Your task to perform on an android device: change keyboard looks Image 0: 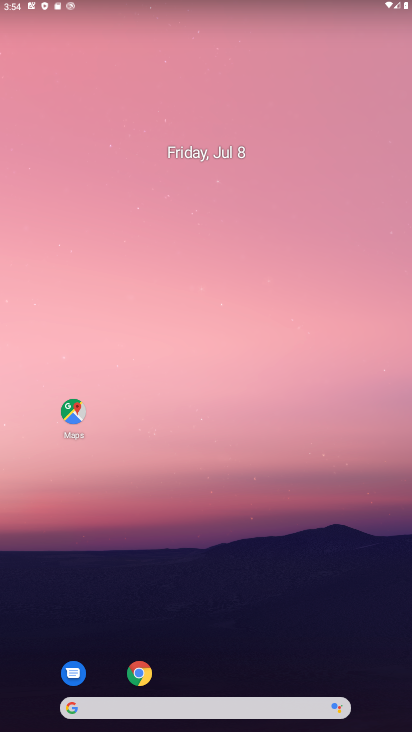
Step 0: drag from (259, 661) to (313, 60)
Your task to perform on an android device: change keyboard looks Image 1: 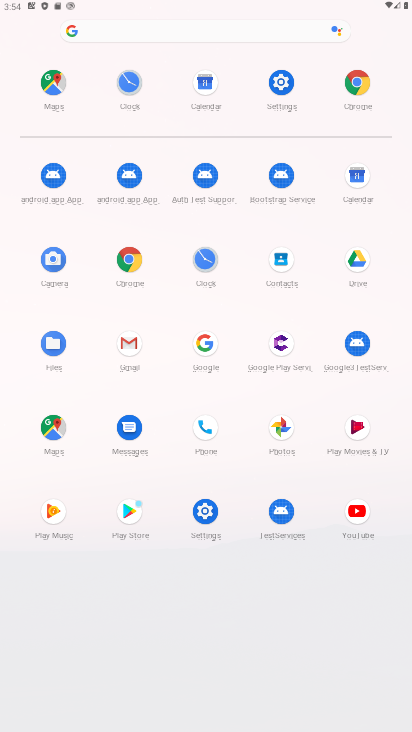
Step 1: click (279, 86)
Your task to perform on an android device: change keyboard looks Image 2: 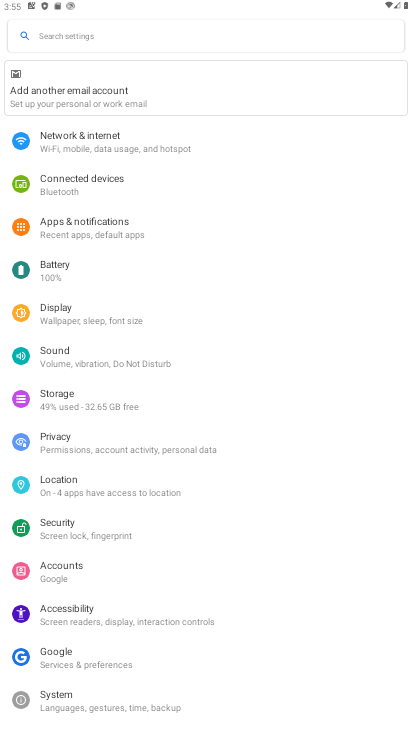
Step 2: drag from (165, 619) to (179, 447)
Your task to perform on an android device: change keyboard looks Image 3: 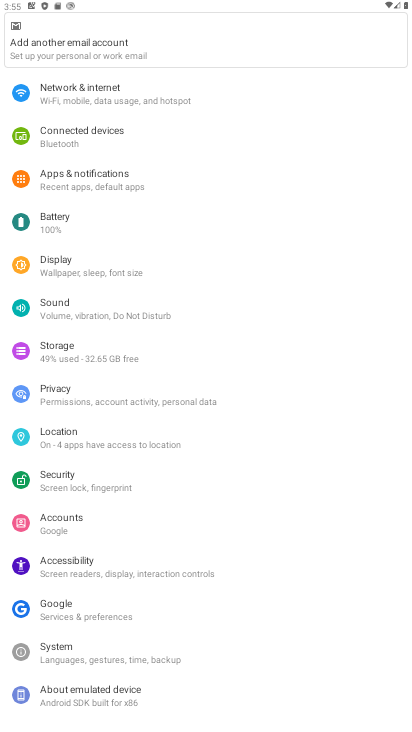
Step 3: click (69, 647)
Your task to perform on an android device: change keyboard looks Image 4: 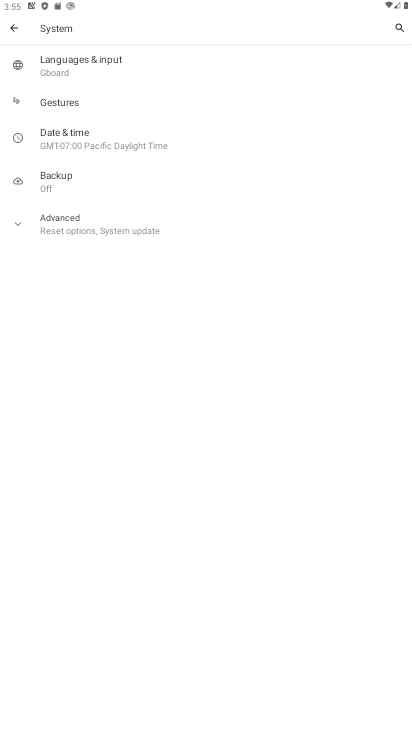
Step 4: click (72, 63)
Your task to perform on an android device: change keyboard looks Image 5: 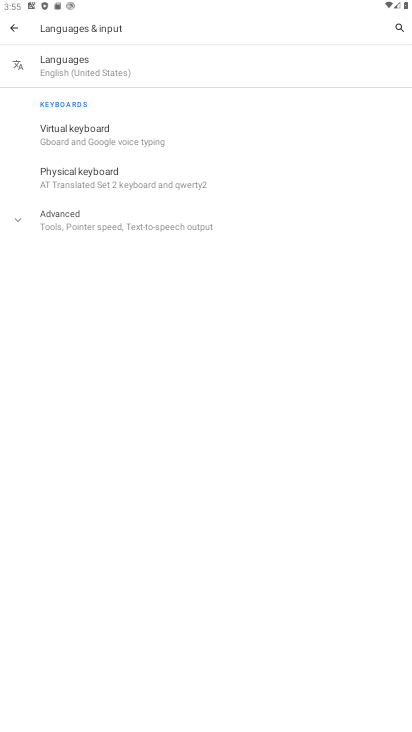
Step 5: click (74, 128)
Your task to perform on an android device: change keyboard looks Image 6: 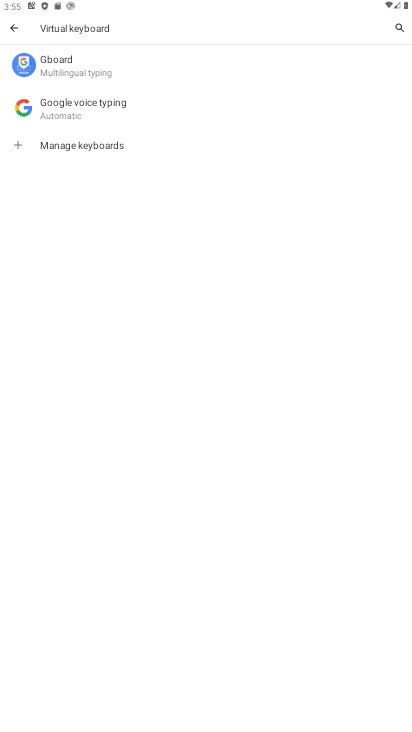
Step 6: click (42, 72)
Your task to perform on an android device: change keyboard looks Image 7: 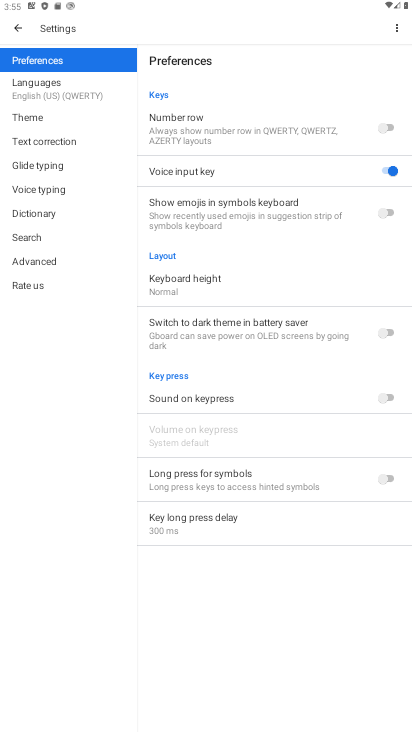
Step 7: click (26, 120)
Your task to perform on an android device: change keyboard looks Image 8: 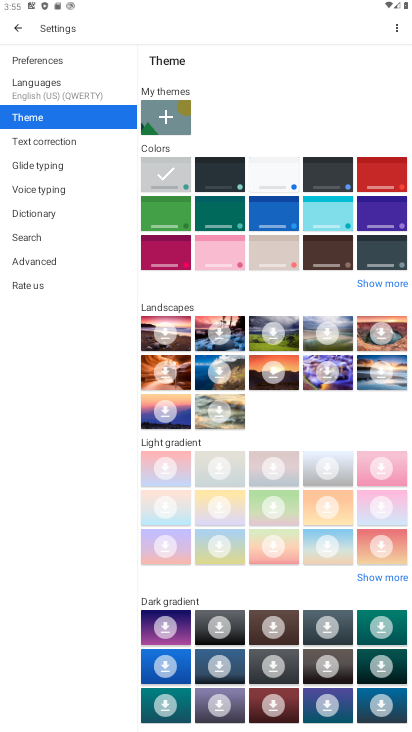
Step 8: click (340, 256)
Your task to perform on an android device: change keyboard looks Image 9: 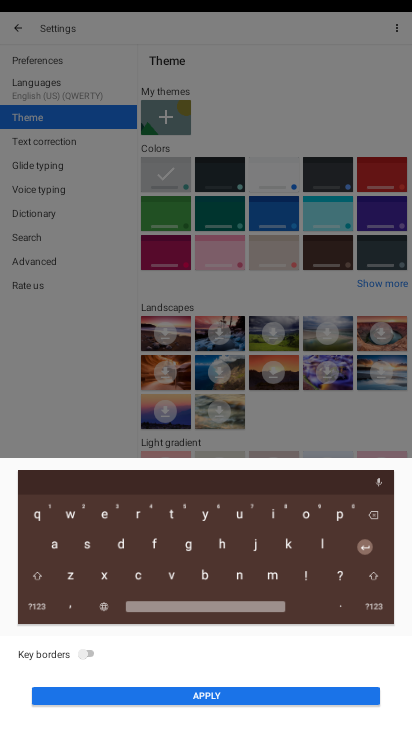
Step 9: click (215, 704)
Your task to perform on an android device: change keyboard looks Image 10: 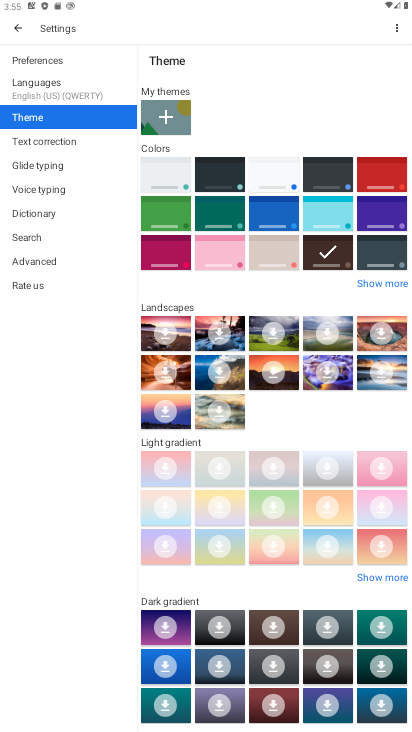
Step 10: task complete